Your task to perform on an android device: Clear the shopping cart on ebay. Search for "usb-c to usb-b" on ebay, select the first entry, add it to the cart, then select checkout. Image 0: 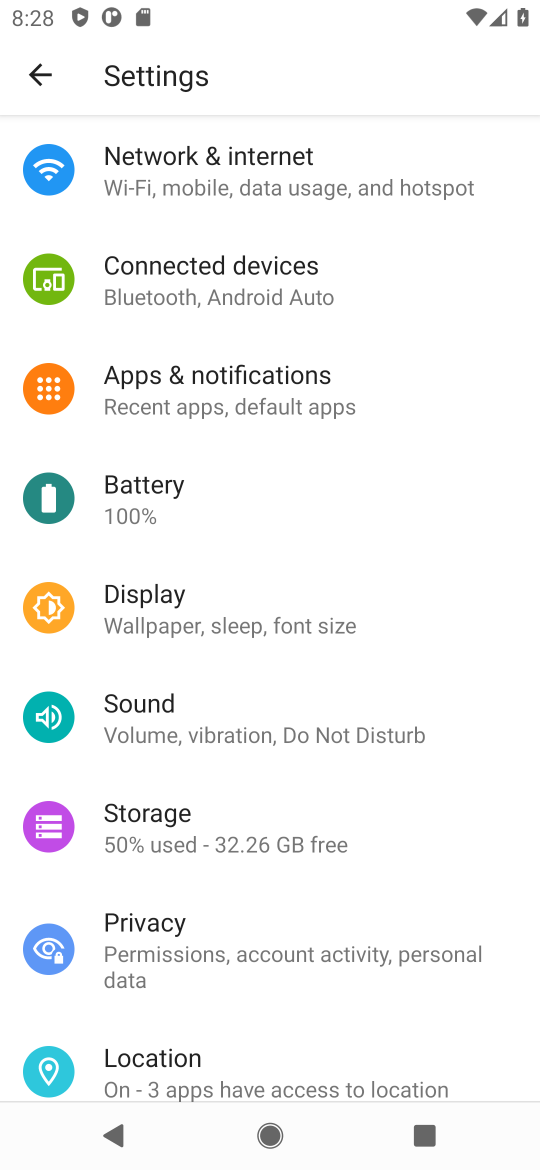
Step 0: press home button
Your task to perform on an android device: Clear the shopping cart on ebay. Search for "usb-c to usb-b" on ebay, select the first entry, add it to the cart, then select checkout. Image 1: 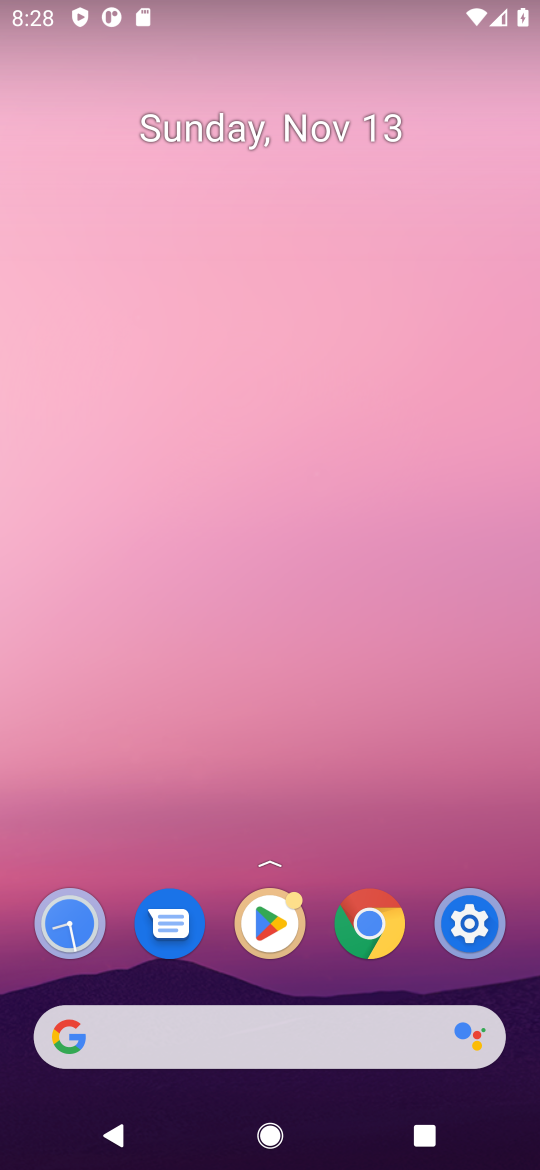
Step 1: click (365, 936)
Your task to perform on an android device: Clear the shopping cart on ebay. Search for "usb-c to usb-b" on ebay, select the first entry, add it to the cart, then select checkout. Image 2: 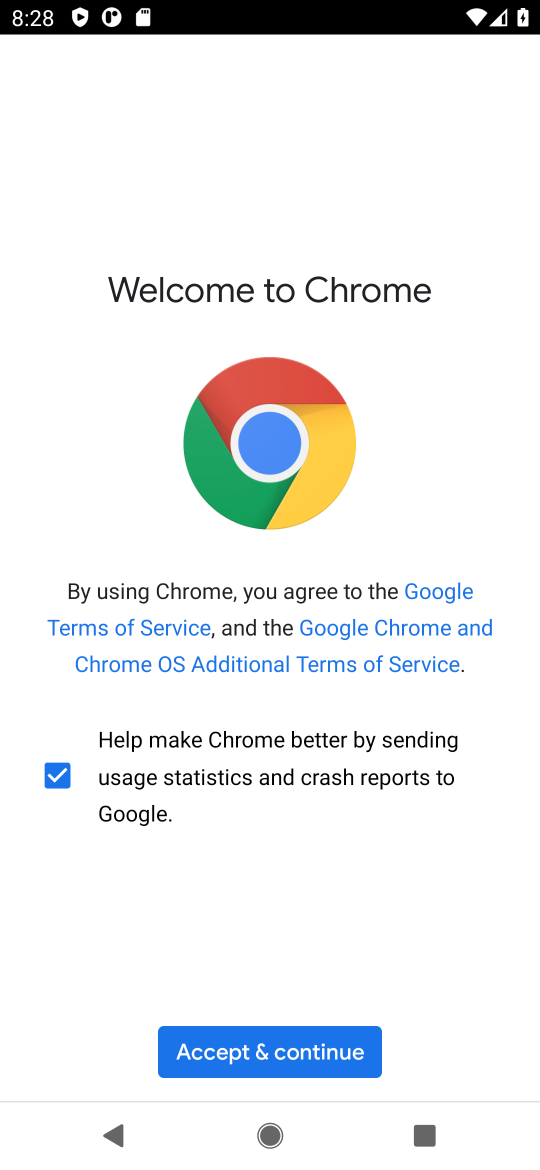
Step 2: click (209, 1058)
Your task to perform on an android device: Clear the shopping cart on ebay. Search for "usb-c to usb-b" on ebay, select the first entry, add it to the cart, then select checkout. Image 3: 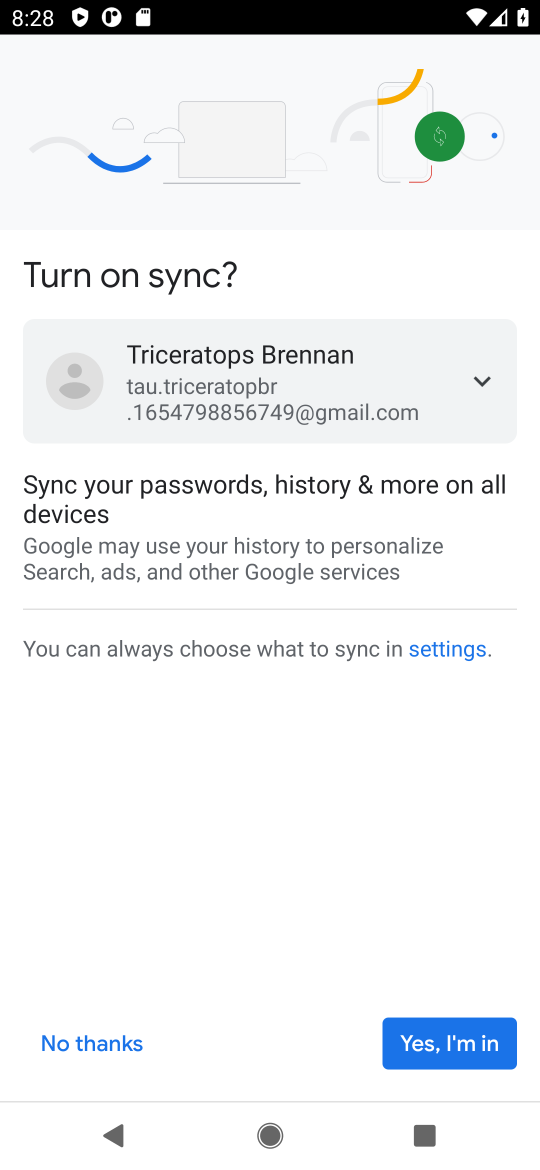
Step 3: click (91, 1042)
Your task to perform on an android device: Clear the shopping cart on ebay. Search for "usb-c to usb-b" on ebay, select the first entry, add it to the cart, then select checkout. Image 4: 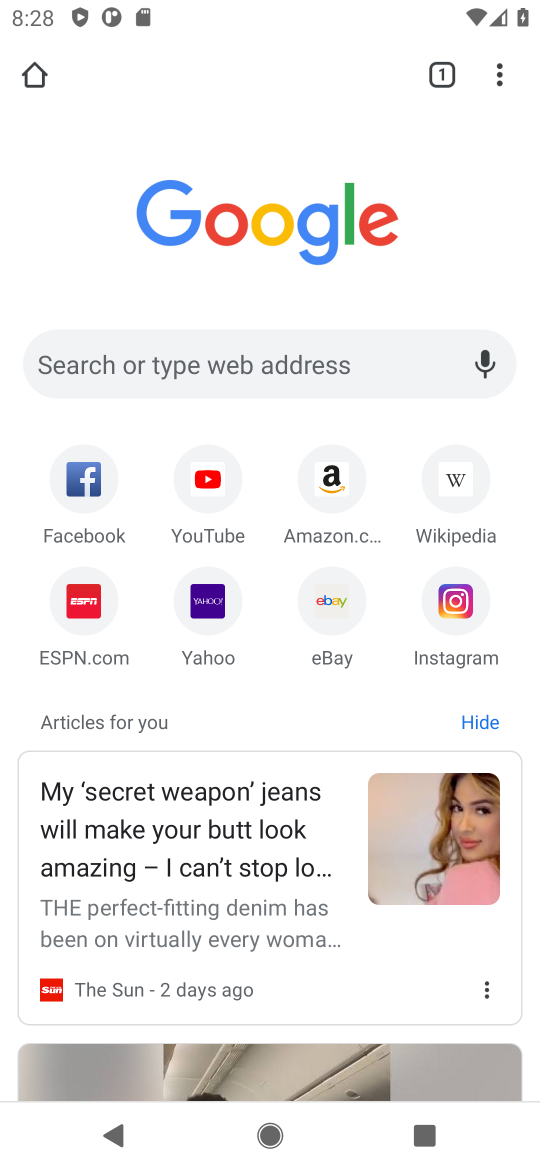
Step 4: click (239, 368)
Your task to perform on an android device: Clear the shopping cart on ebay. Search for "usb-c to usb-b" on ebay, select the first entry, add it to the cart, then select checkout. Image 5: 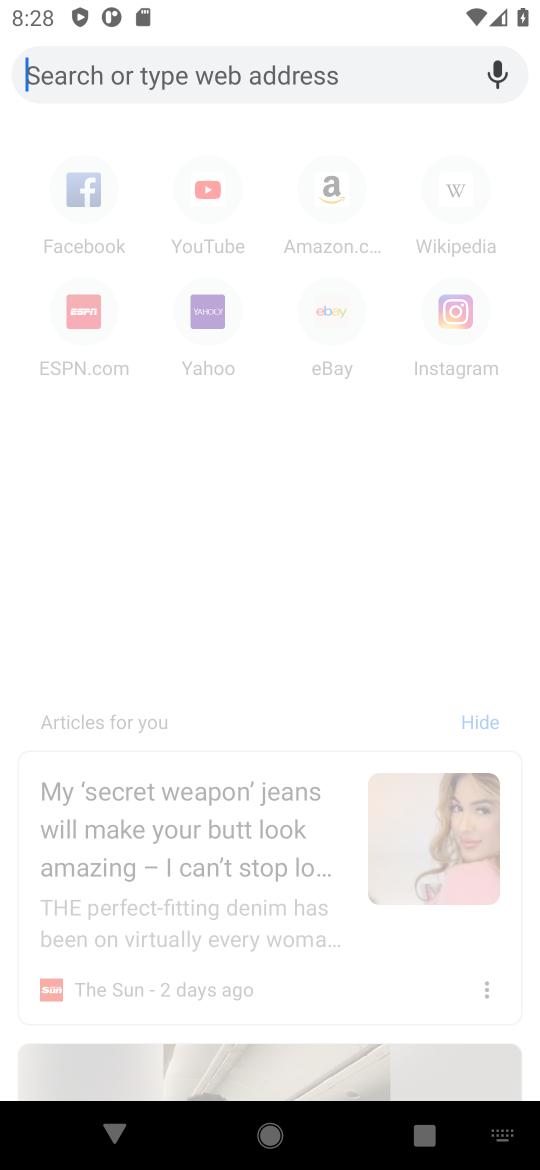
Step 5: type "ebay"
Your task to perform on an android device: Clear the shopping cart on ebay. Search for "usb-c to usb-b" on ebay, select the first entry, add it to the cart, then select checkout. Image 6: 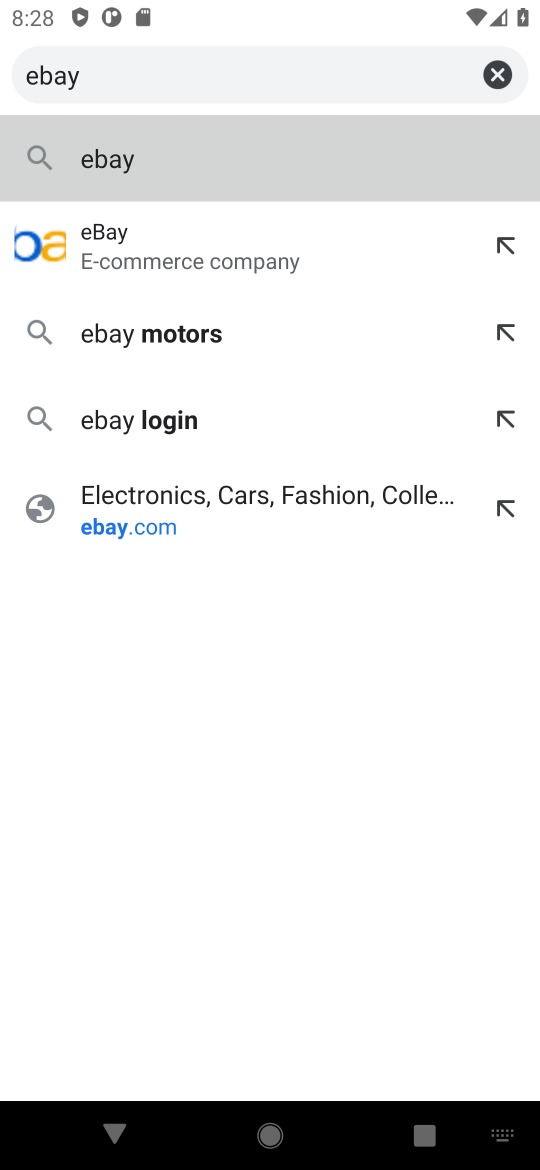
Step 6: click (217, 520)
Your task to perform on an android device: Clear the shopping cart on ebay. Search for "usb-c to usb-b" on ebay, select the first entry, add it to the cart, then select checkout. Image 7: 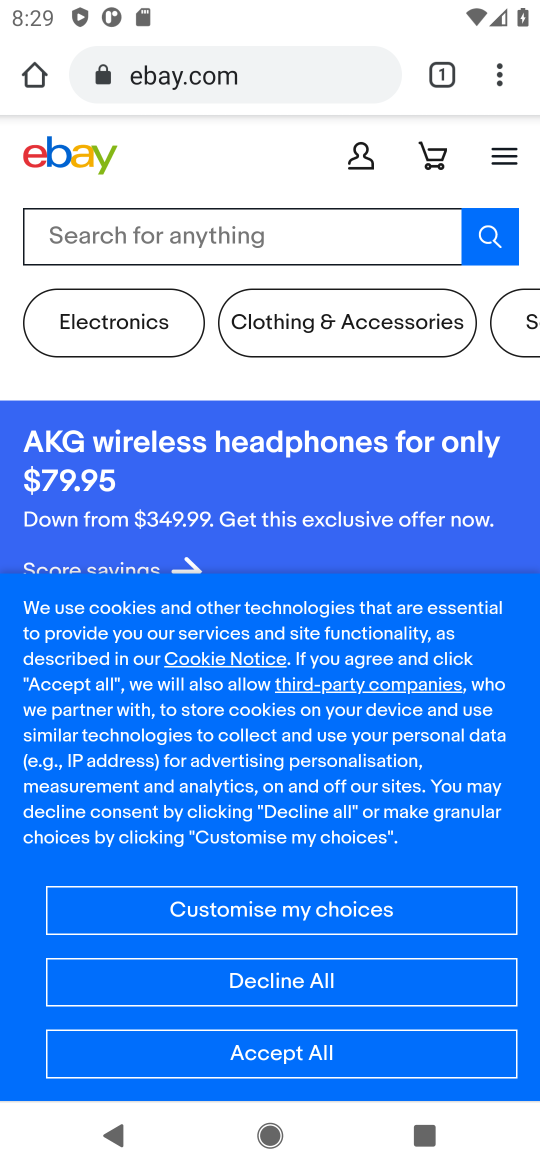
Step 7: click (276, 1060)
Your task to perform on an android device: Clear the shopping cart on ebay. Search for "usb-c to usb-b" on ebay, select the first entry, add it to the cart, then select checkout. Image 8: 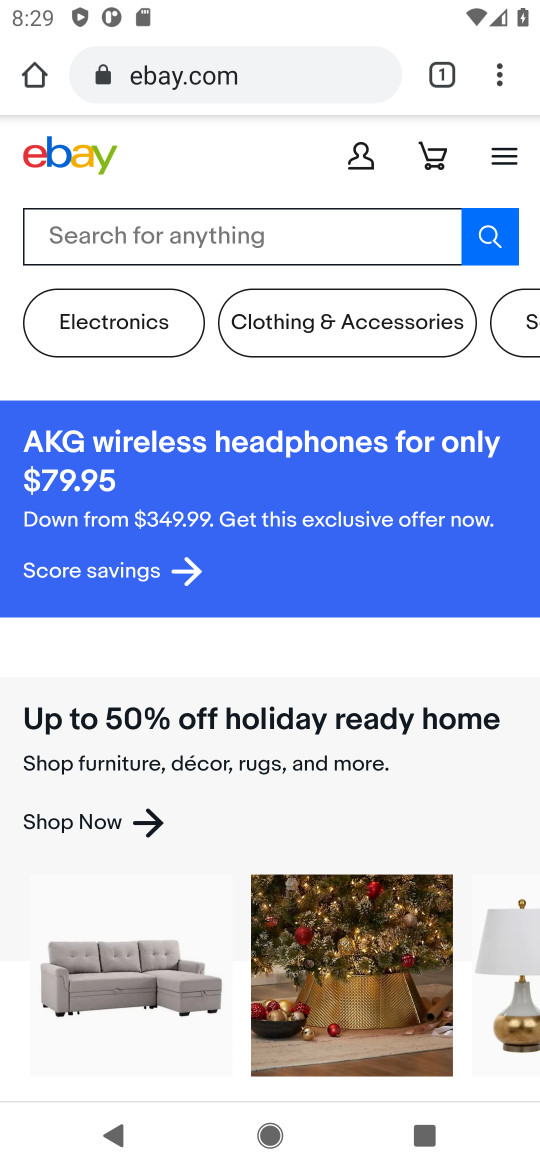
Step 8: click (227, 236)
Your task to perform on an android device: Clear the shopping cart on ebay. Search for "usb-c to usb-b" on ebay, select the first entry, add it to the cart, then select checkout. Image 9: 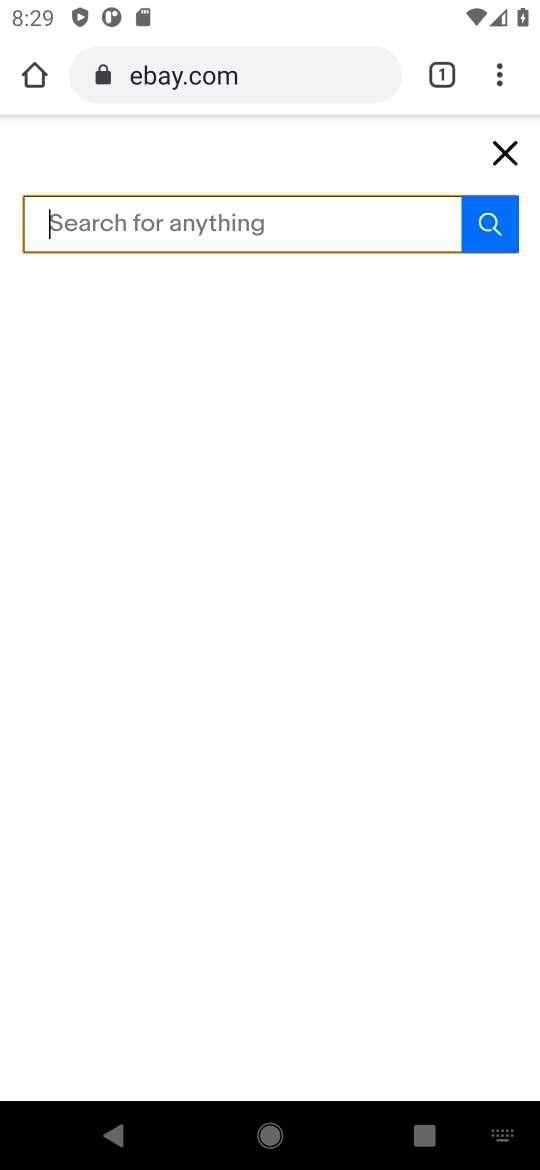
Step 9: type "usb-c to usb-b"
Your task to perform on an android device: Clear the shopping cart on ebay. Search for "usb-c to usb-b" on ebay, select the first entry, add it to the cart, then select checkout. Image 10: 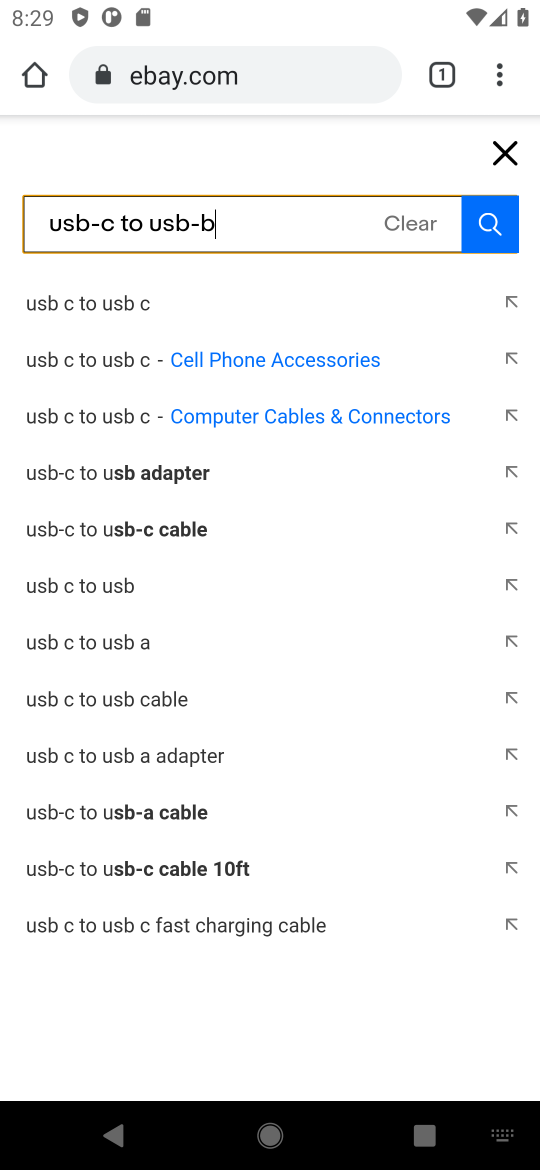
Step 10: press enter
Your task to perform on an android device: Clear the shopping cart on ebay. Search for "usb-c to usb-b" on ebay, select the first entry, add it to the cart, then select checkout. Image 11: 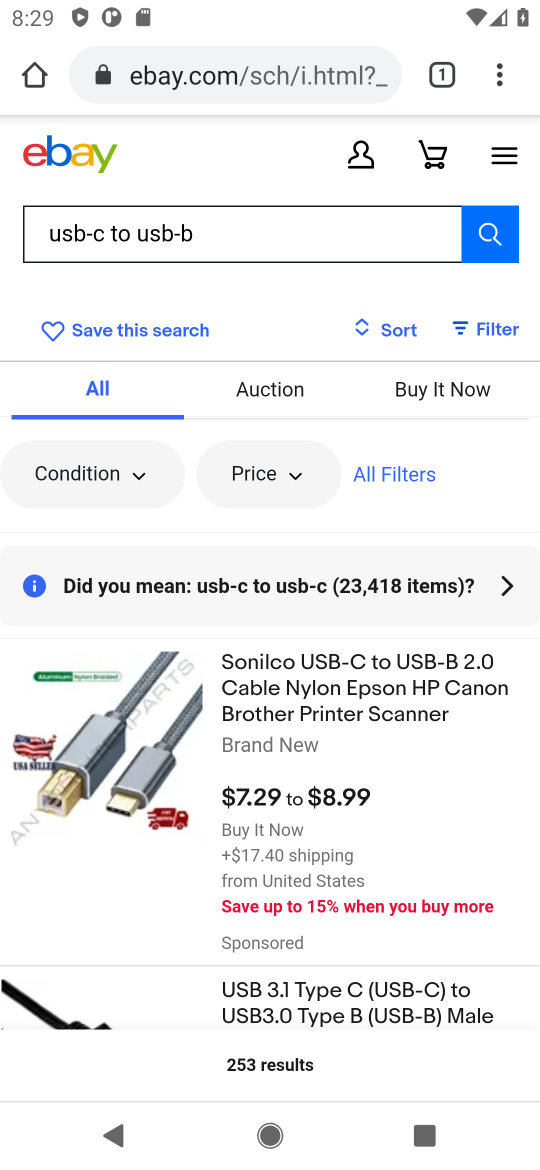
Step 11: click (332, 715)
Your task to perform on an android device: Clear the shopping cart on ebay. Search for "usb-c to usb-b" on ebay, select the first entry, add it to the cart, then select checkout. Image 12: 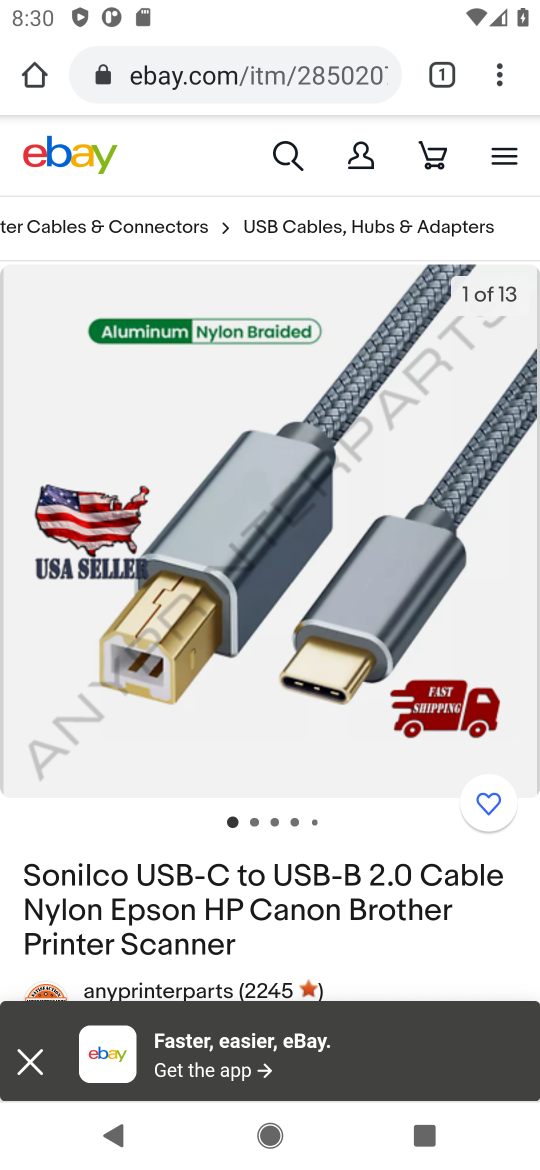
Step 12: drag from (323, 849) to (371, 316)
Your task to perform on an android device: Clear the shopping cart on ebay. Search for "usb-c to usb-b" on ebay, select the first entry, add it to the cart, then select checkout. Image 13: 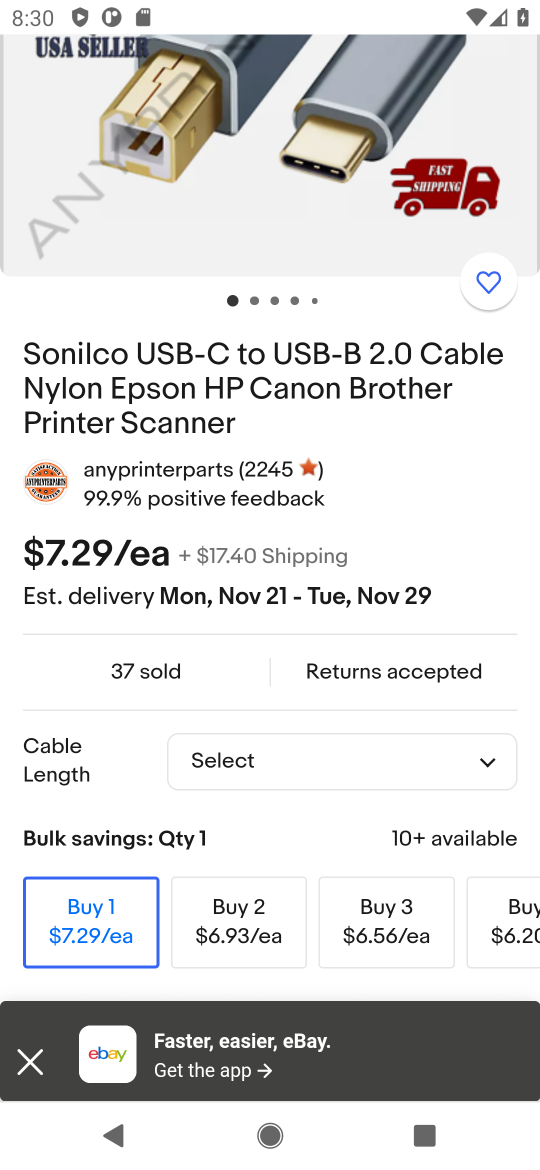
Step 13: click (298, 774)
Your task to perform on an android device: Clear the shopping cart on ebay. Search for "usb-c to usb-b" on ebay, select the first entry, add it to the cart, then select checkout. Image 14: 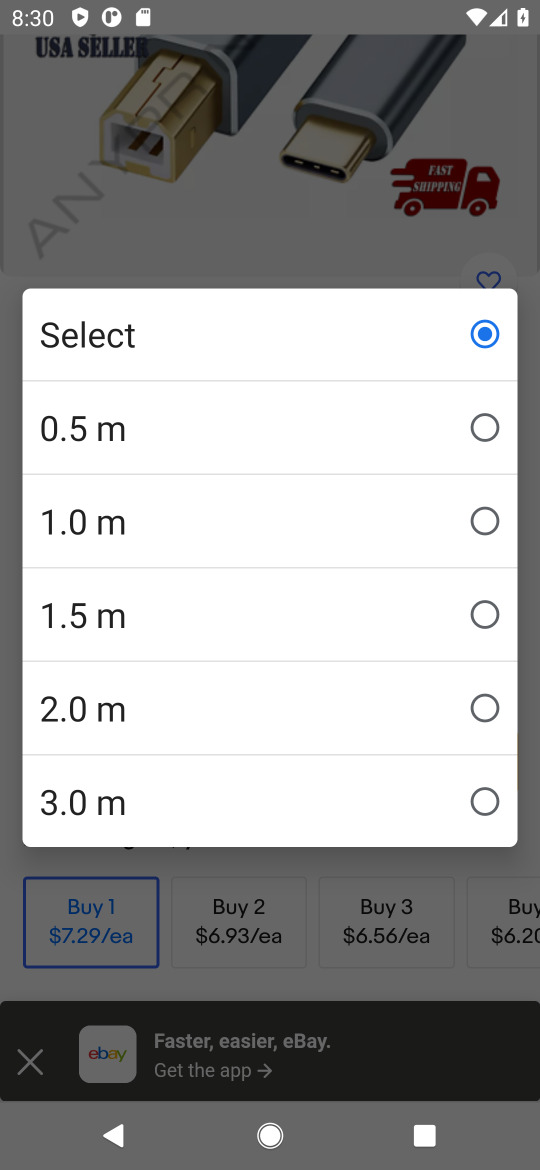
Step 14: click (172, 443)
Your task to perform on an android device: Clear the shopping cart on ebay. Search for "usb-c to usb-b" on ebay, select the first entry, add it to the cart, then select checkout. Image 15: 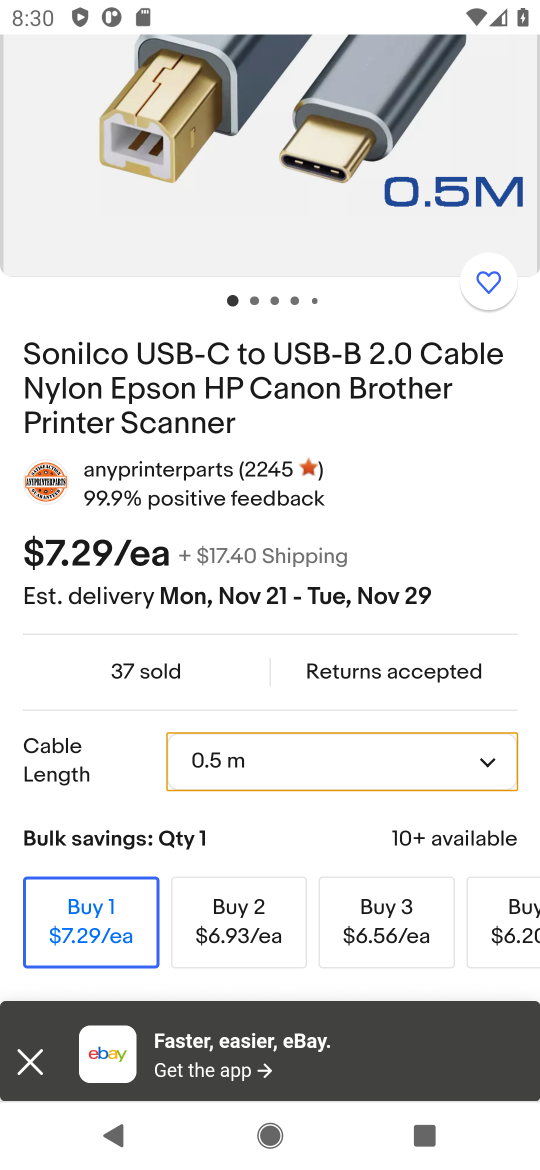
Step 15: drag from (263, 718) to (383, 244)
Your task to perform on an android device: Clear the shopping cart on ebay. Search for "usb-c to usb-b" on ebay, select the first entry, add it to the cart, then select checkout. Image 16: 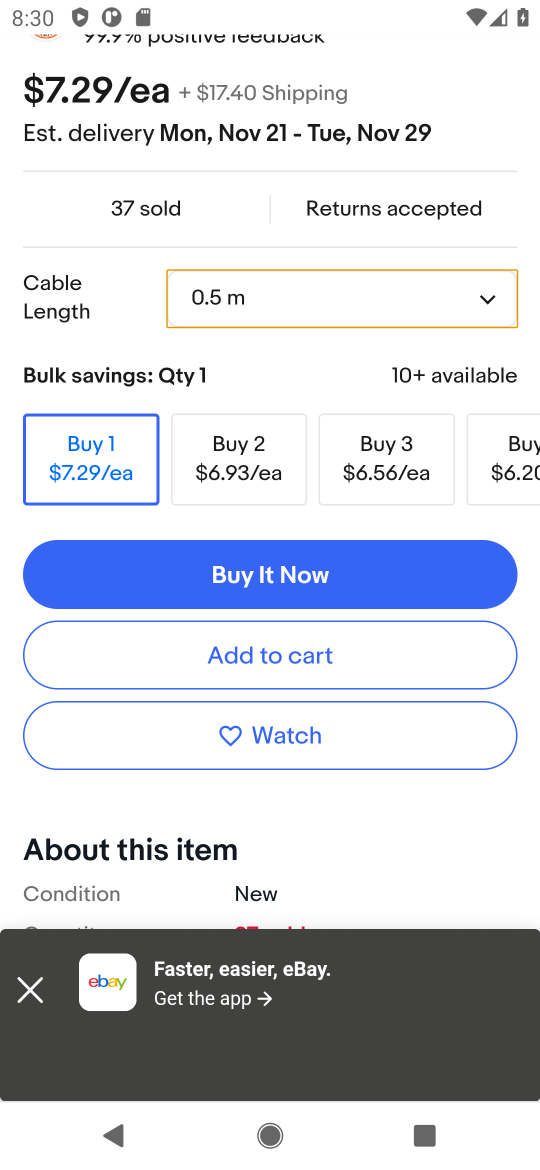
Step 16: click (271, 670)
Your task to perform on an android device: Clear the shopping cart on ebay. Search for "usb-c to usb-b" on ebay, select the first entry, add it to the cart, then select checkout. Image 17: 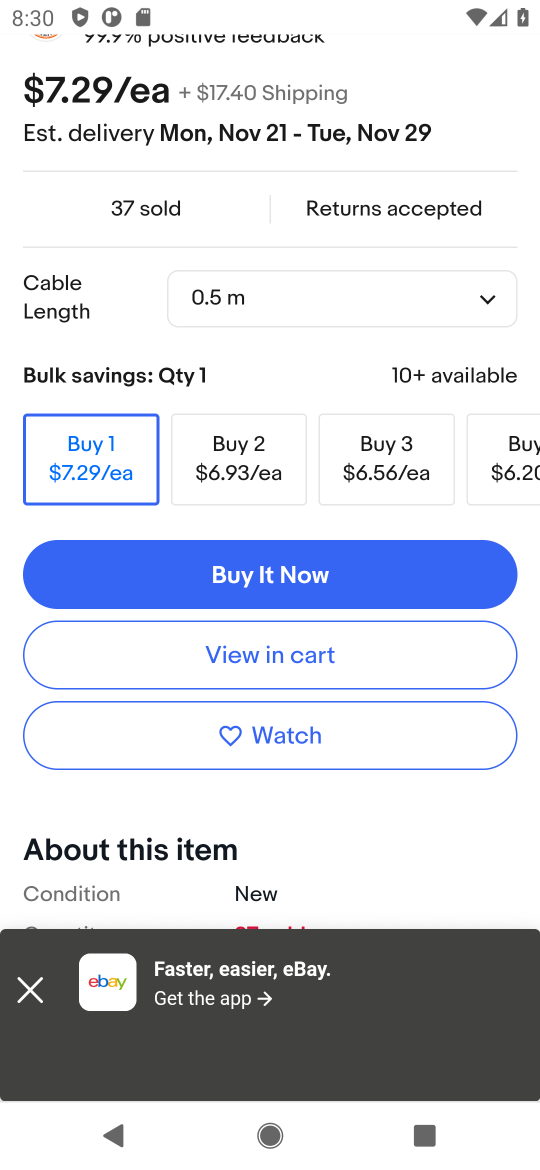
Step 17: click (297, 665)
Your task to perform on an android device: Clear the shopping cart on ebay. Search for "usb-c to usb-b" on ebay, select the first entry, add it to the cart, then select checkout. Image 18: 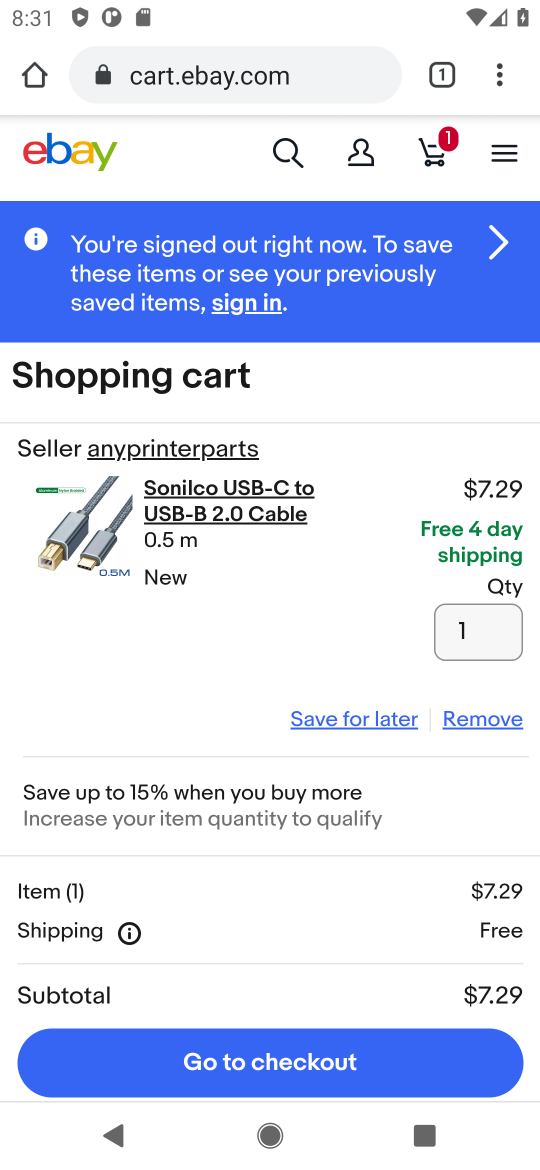
Step 18: click (283, 1069)
Your task to perform on an android device: Clear the shopping cart on ebay. Search for "usb-c to usb-b" on ebay, select the first entry, add it to the cart, then select checkout. Image 19: 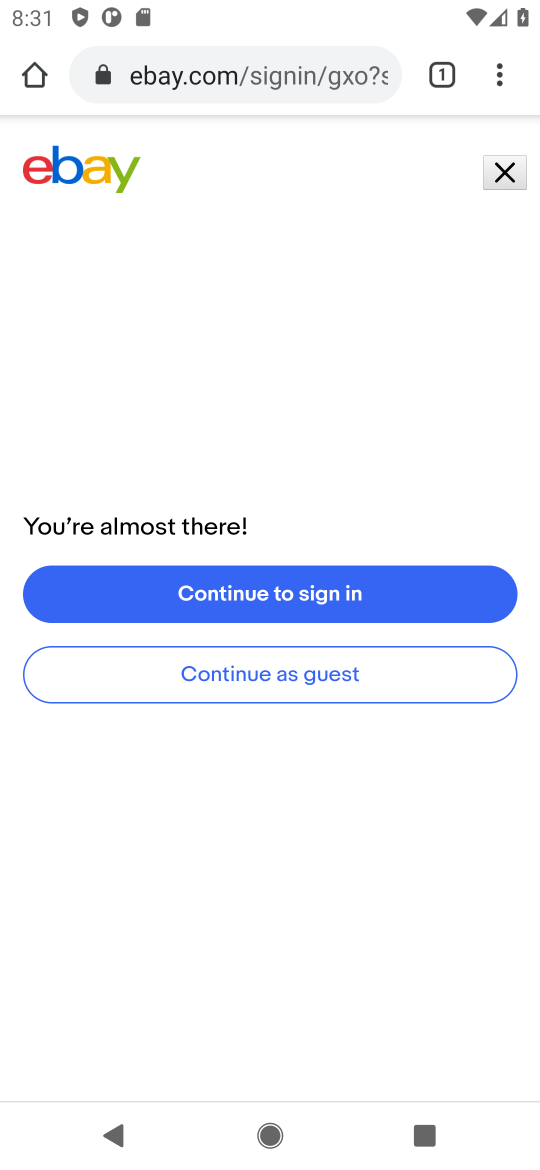
Step 19: task complete